Your task to perform on an android device: Open Youtube and go to "Your channel" Image 0: 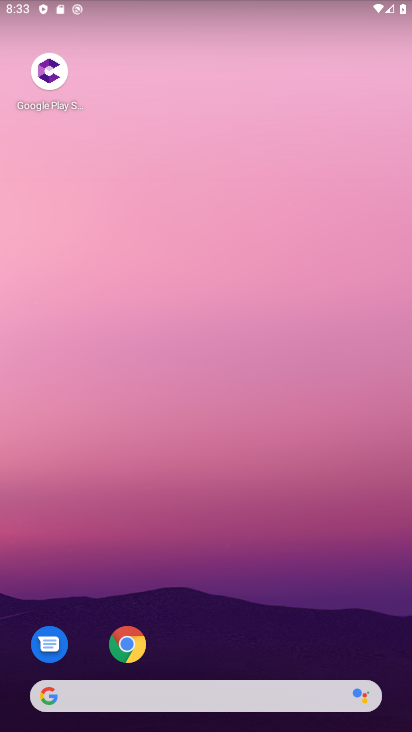
Step 0: drag from (225, 653) to (180, 128)
Your task to perform on an android device: Open Youtube and go to "Your channel" Image 1: 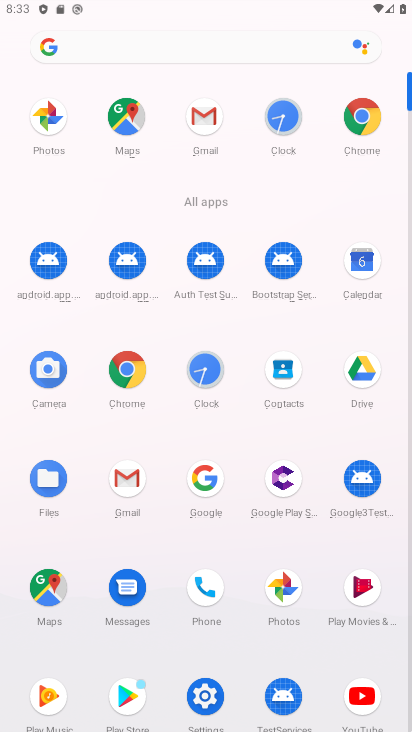
Step 1: click (367, 697)
Your task to perform on an android device: Open Youtube and go to "Your channel" Image 2: 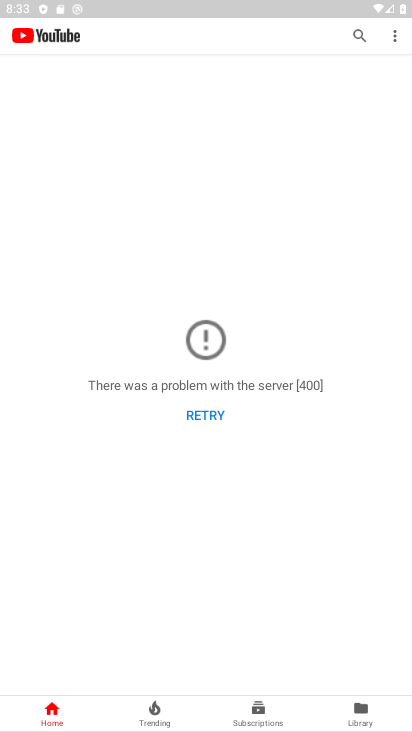
Step 2: click (210, 403)
Your task to perform on an android device: Open Youtube and go to "Your channel" Image 3: 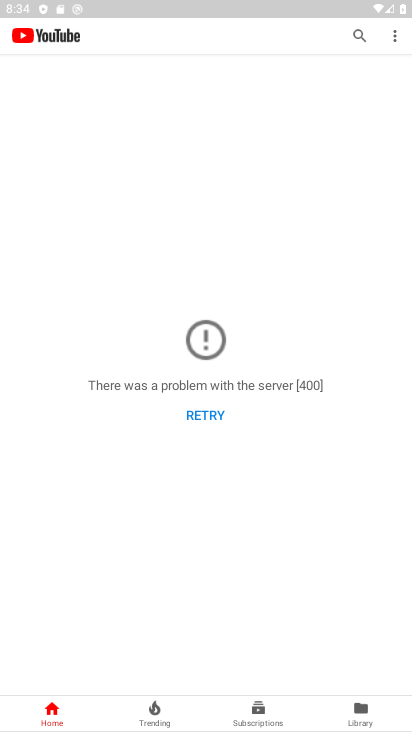
Step 3: click (210, 416)
Your task to perform on an android device: Open Youtube and go to "Your channel" Image 4: 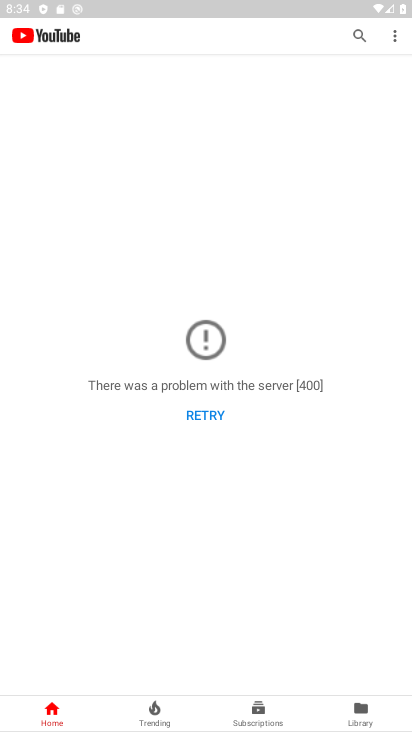
Step 4: task complete